Your task to perform on an android device: Open settings on Google Maps Image 0: 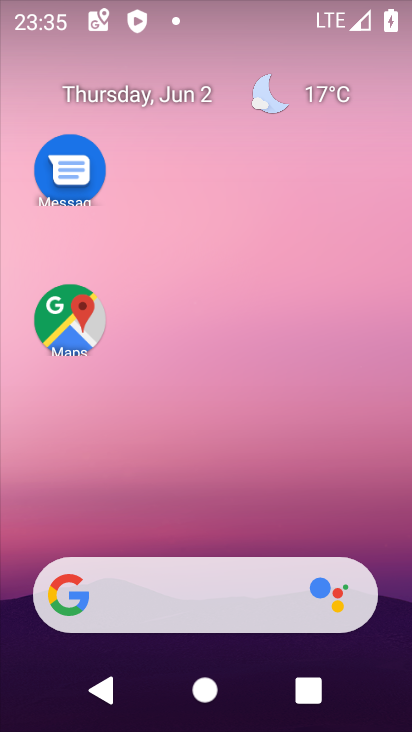
Step 0: click (70, 290)
Your task to perform on an android device: Open settings on Google Maps Image 1: 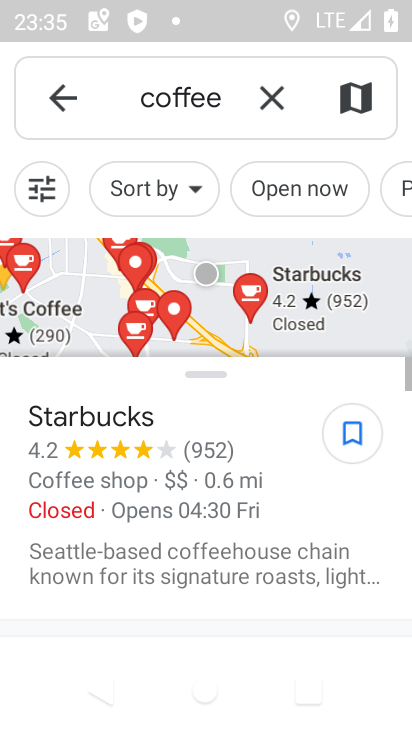
Step 1: click (48, 84)
Your task to perform on an android device: Open settings on Google Maps Image 2: 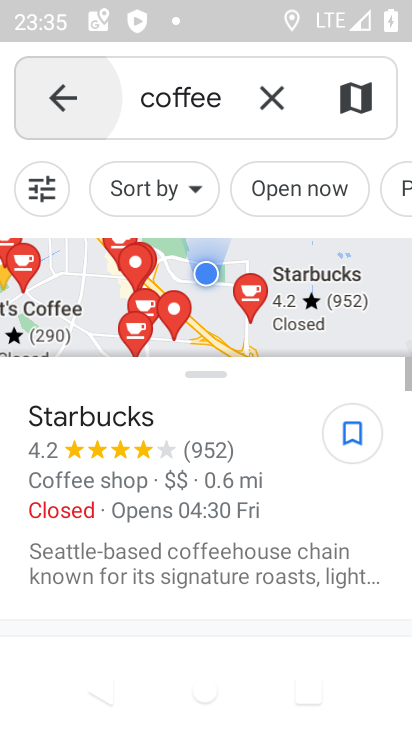
Step 2: click (53, 87)
Your task to perform on an android device: Open settings on Google Maps Image 3: 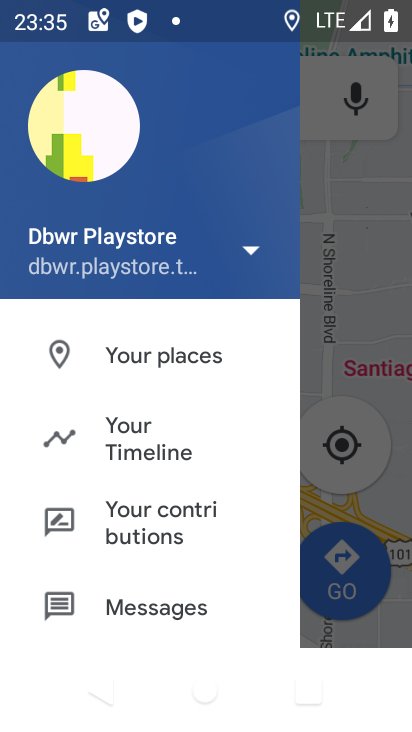
Step 3: drag from (138, 587) to (213, 153)
Your task to perform on an android device: Open settings on Google Maps Image 4: 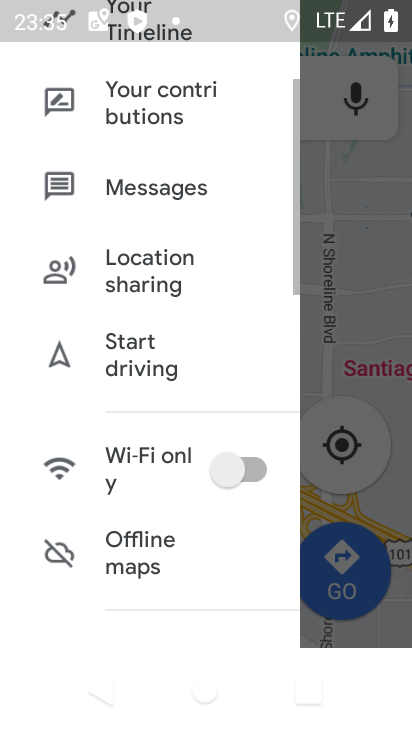
Step 4: drag from (186, 390) to (173, 92)
Your task to perform on an android device: Open settings on Google Maps Image 5: 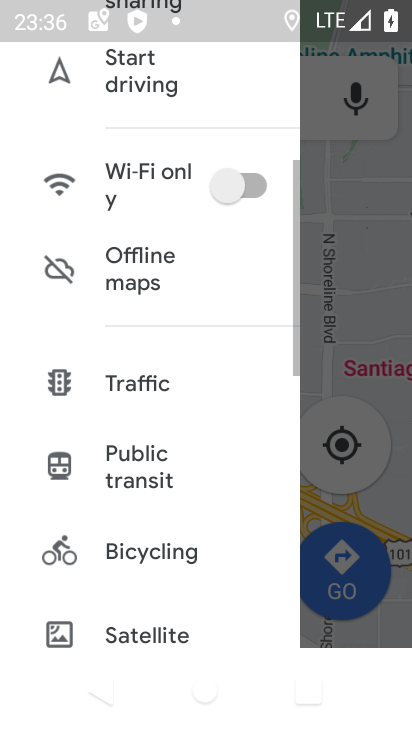
Step 5: drag from (77, 551) to (149, 110)
Your task to perform on an android device: Open settings on Google Maps Image 6: 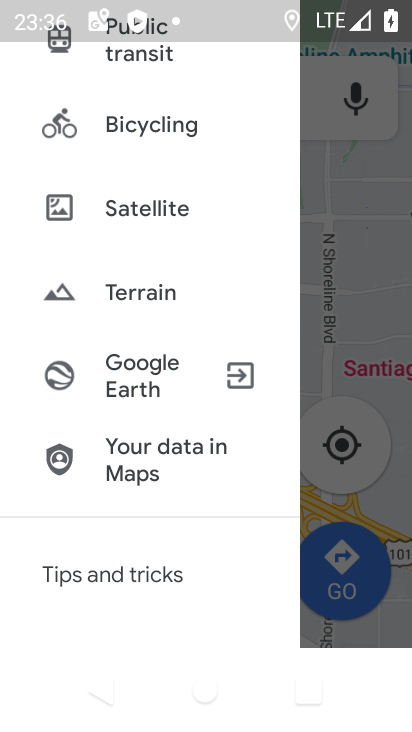
Step 6: drag from (132, 534) to (187, 182)
Your task to perform on an android device: Open settings on Google Maps Image 7: 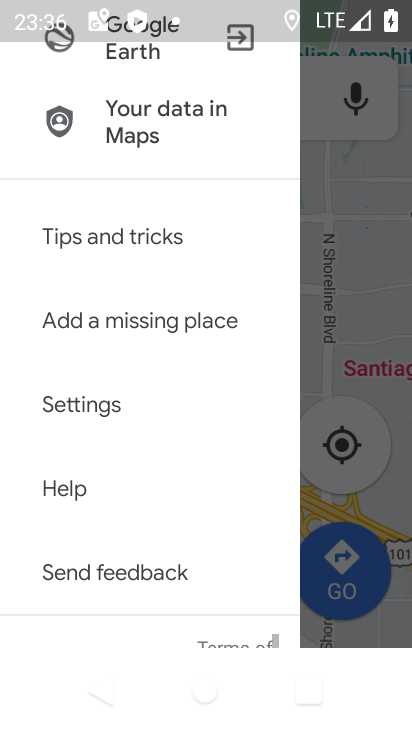
Step 7: click (81, 403)
Your task to perform on an android device: Open settings on Google Maps Image 8: 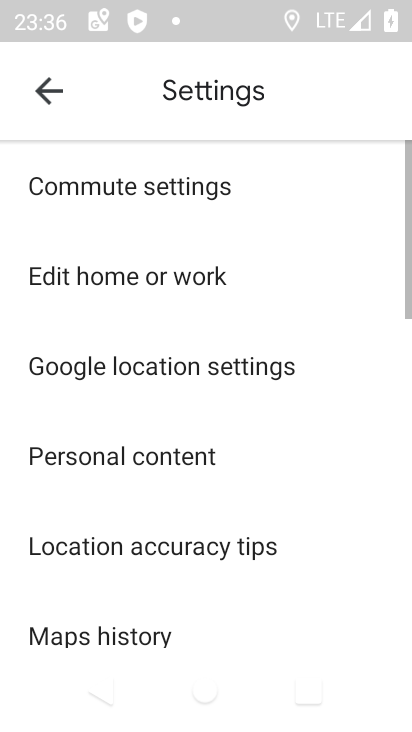
Step 8: task complete